Your task to perform on an android device: read, delete, or share a saved page in the chrome app Image 0: 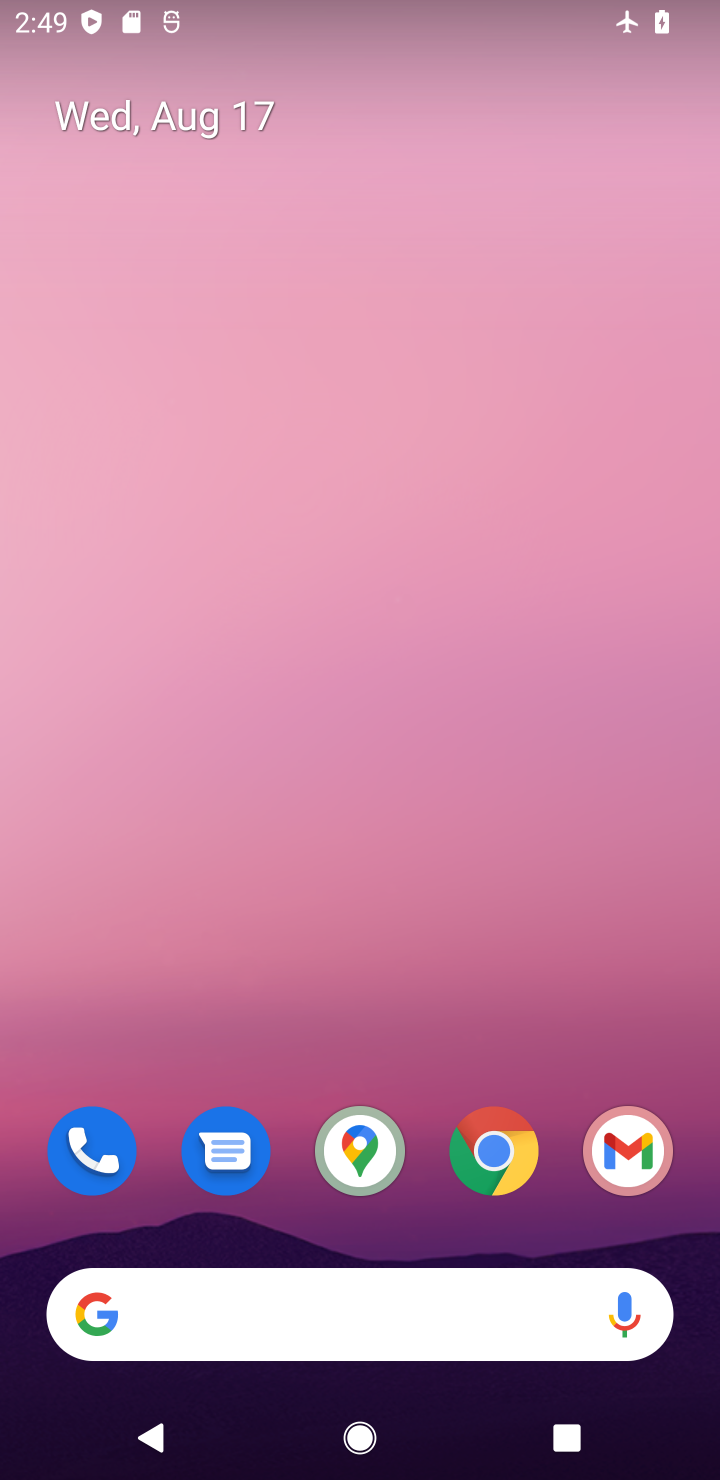
Step 0: drag from (306, 868) to (326, 487)
Your task to perform on an android device: read, delete, or share a saved page in the chrome app Image 1: 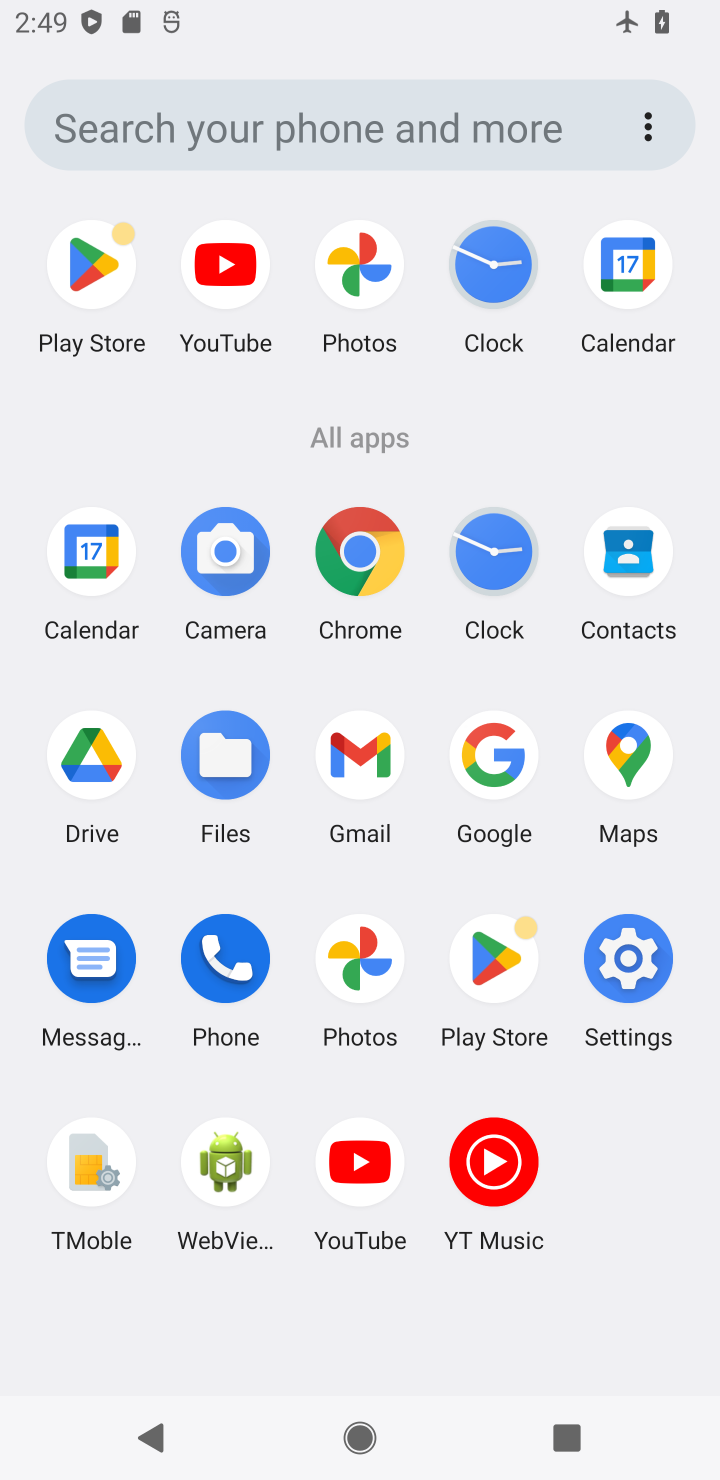
Step 1: click (354, 551)
Your task to perform on an android device: read, delete, or share a saved page in the chrome app Image 2: 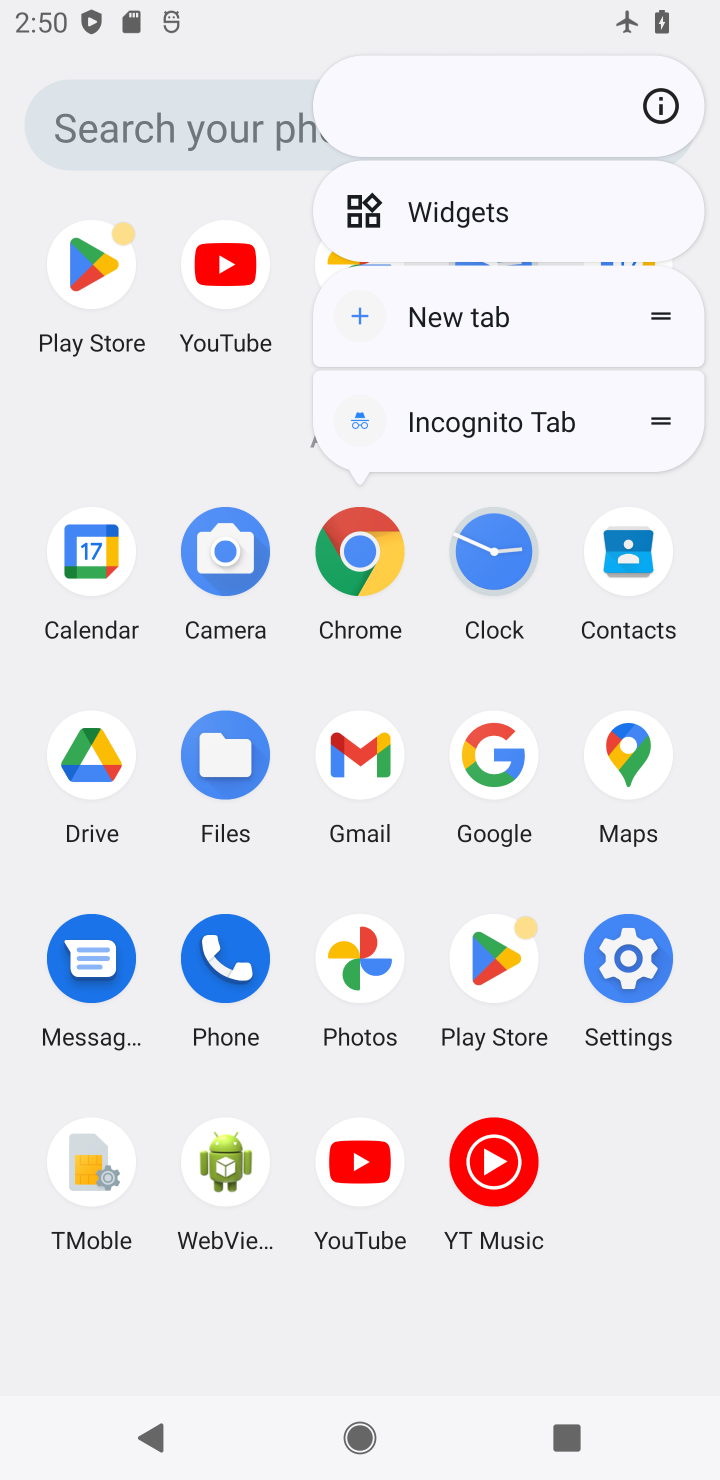
Step 2: click (377, 526)
Your task to perform on an android device: read, delete, or share a saved page in the chrome app Image 3: 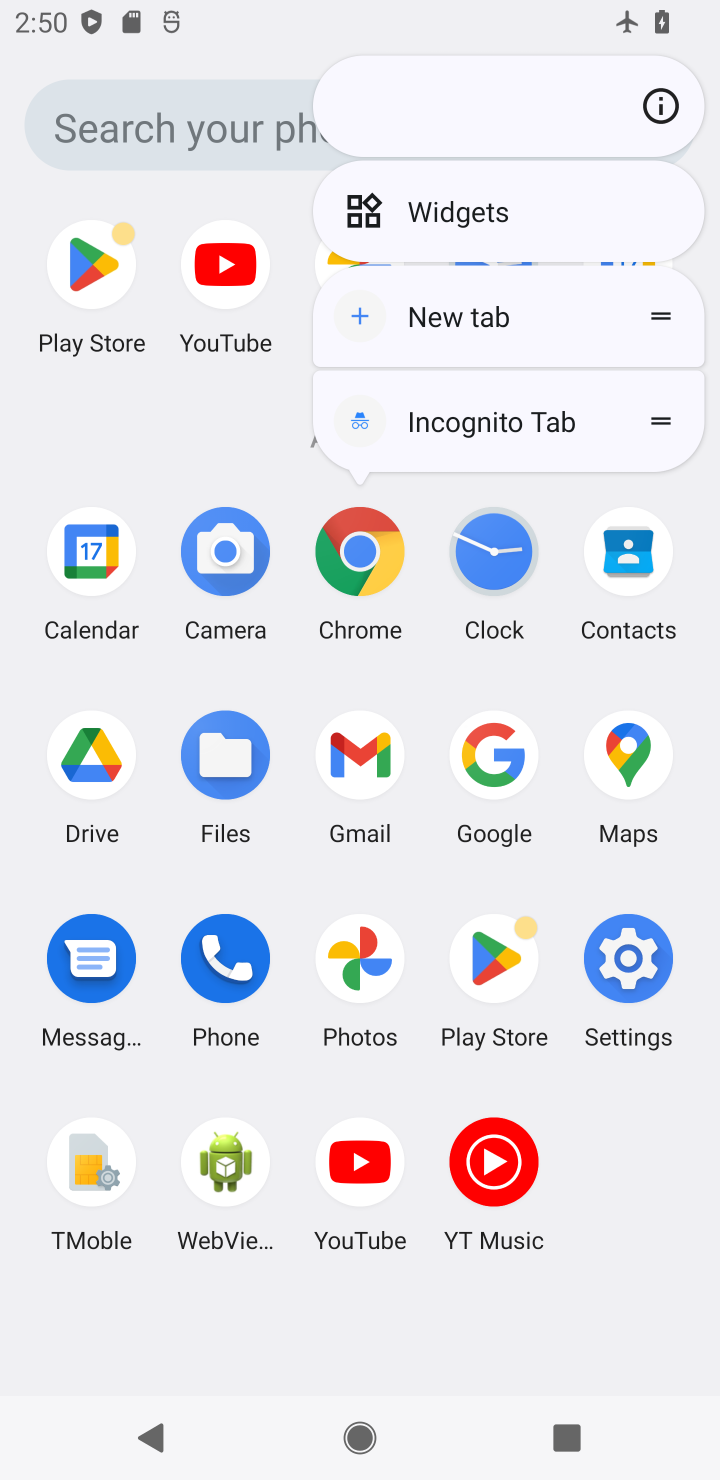
Step 3: click (369, 562)
Your task to perform on an android device: read, delete, or share a saved page in the chrome app Image 4: 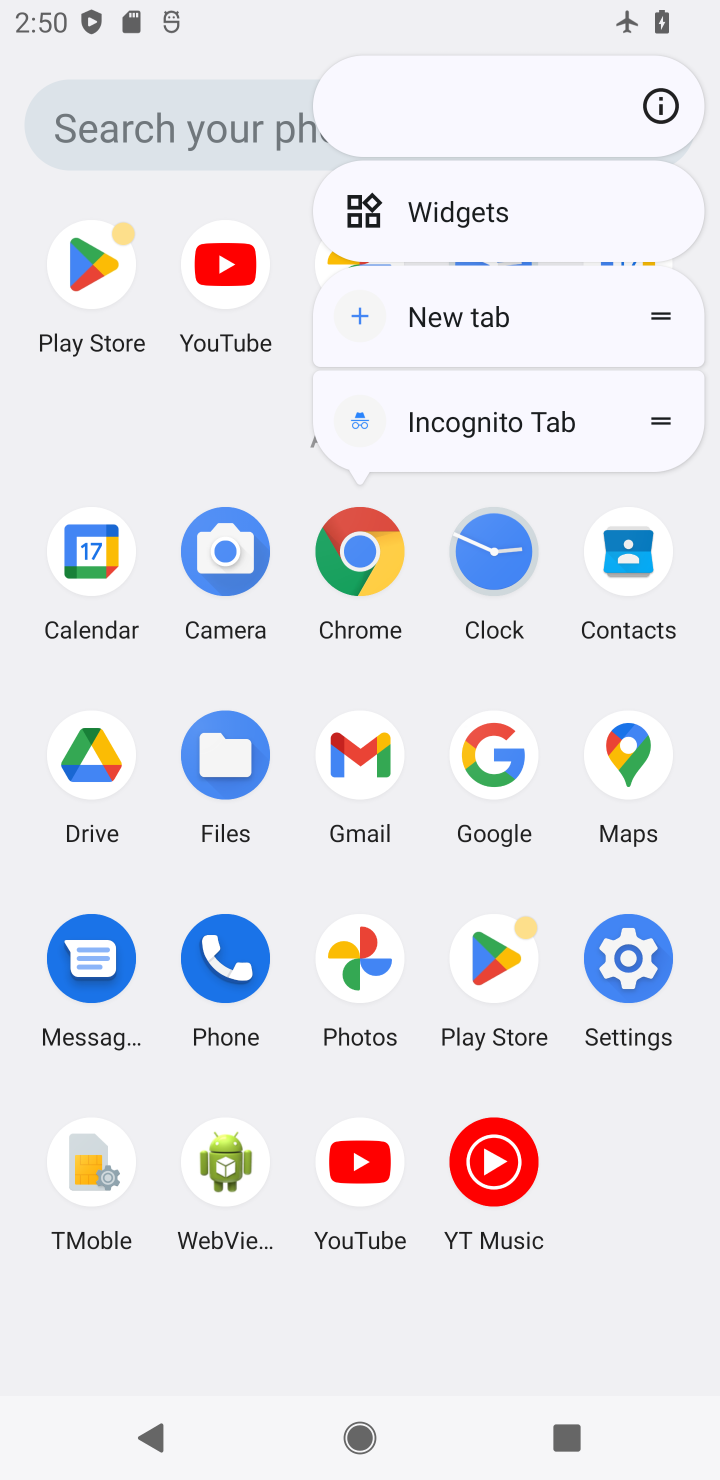
Step 4: click (369, 562)
Your task to perform on an android device: read, delete, or share a saved page in the chrome app Image 5: 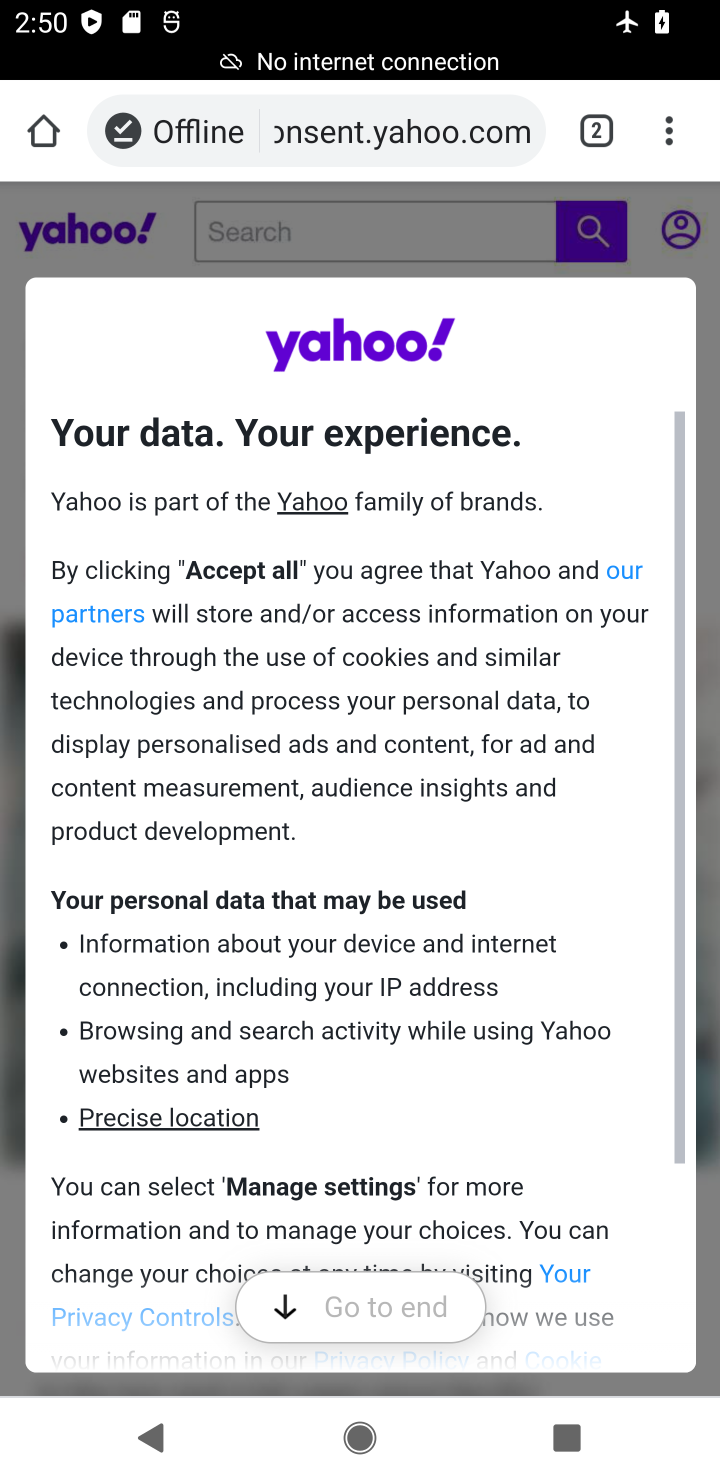
Step 5: click (678, 131)
Your task to perform on an android device: read, delete, or share a saved page in the chrome app Image 6: 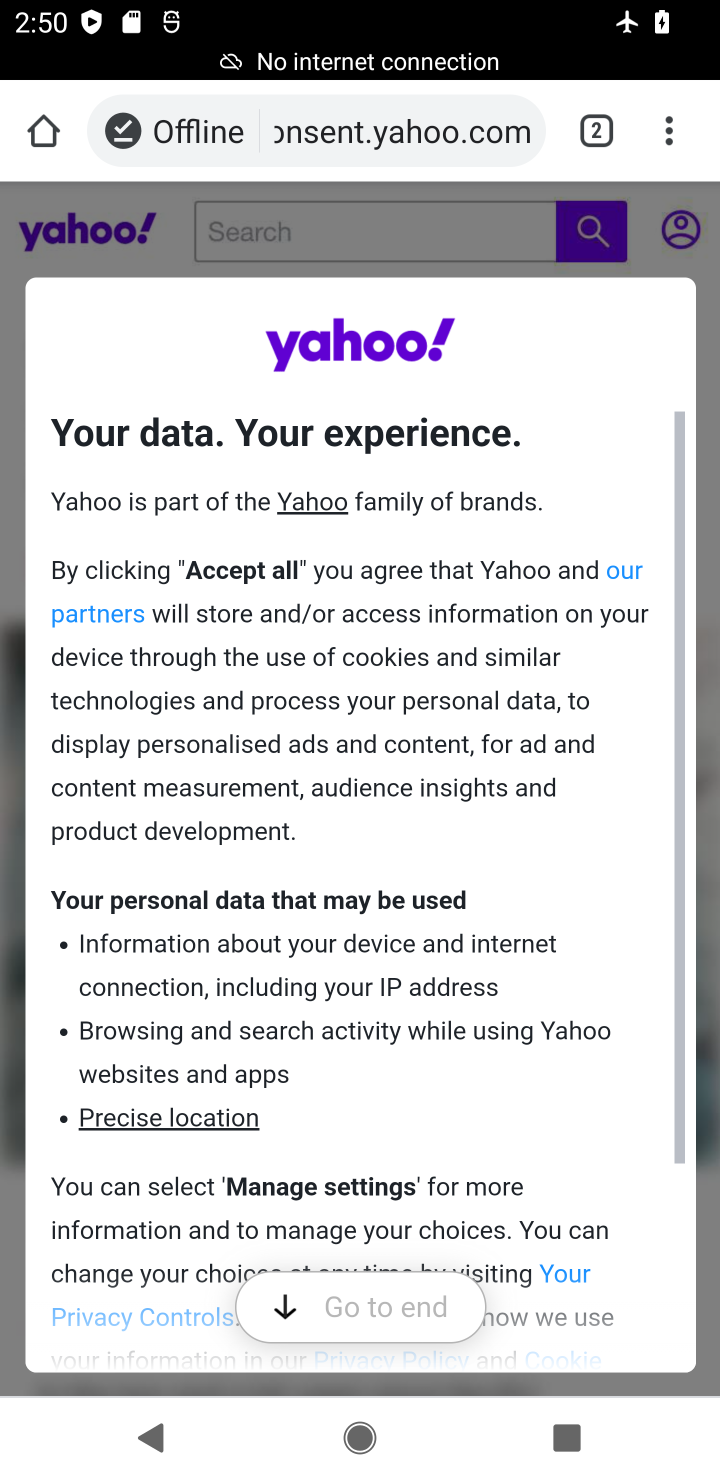
Step 6: click (662, 119)
Your task to perform on an android device: read, delete, or share a saved page in the chrome app Image 7: 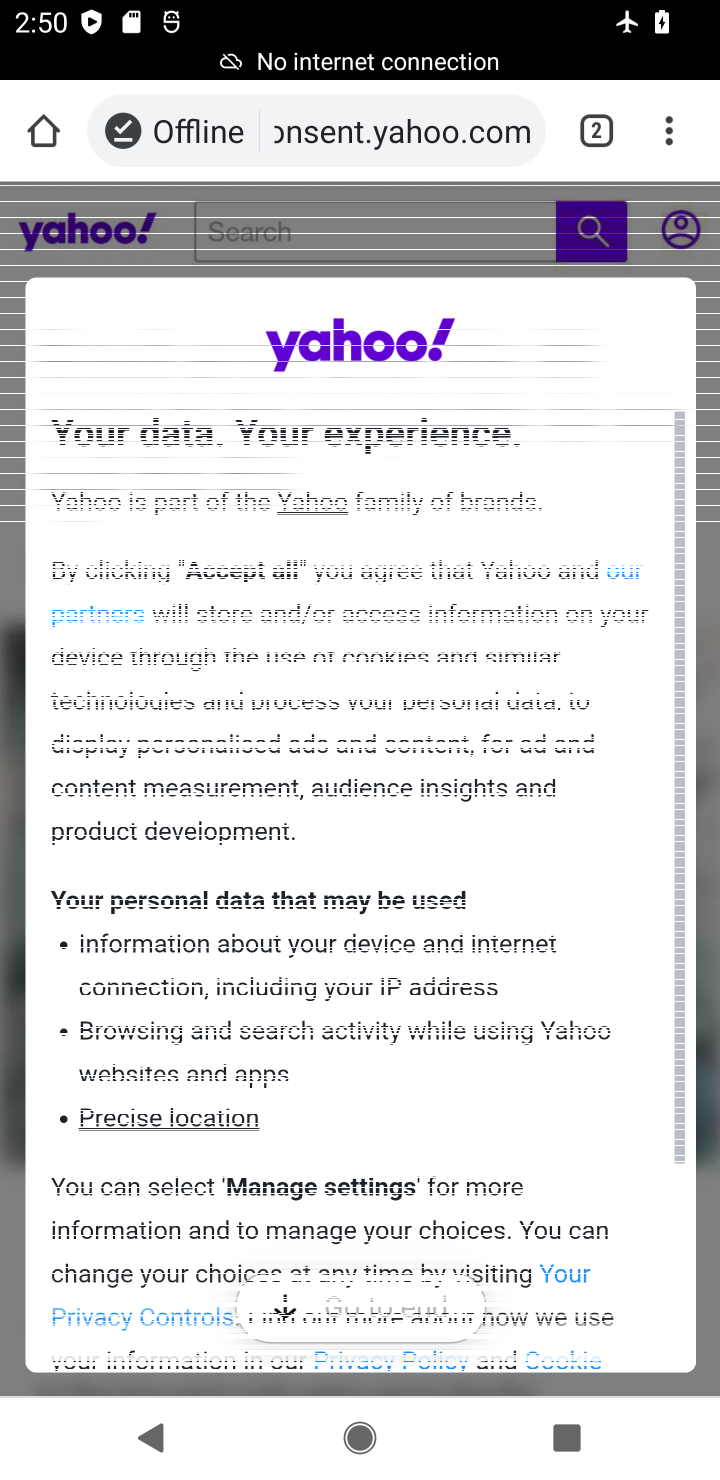
Step 7: click (669, 123)
Your task to perform on an android device: read, delete, or share a saved page in the chrome app Image 8: 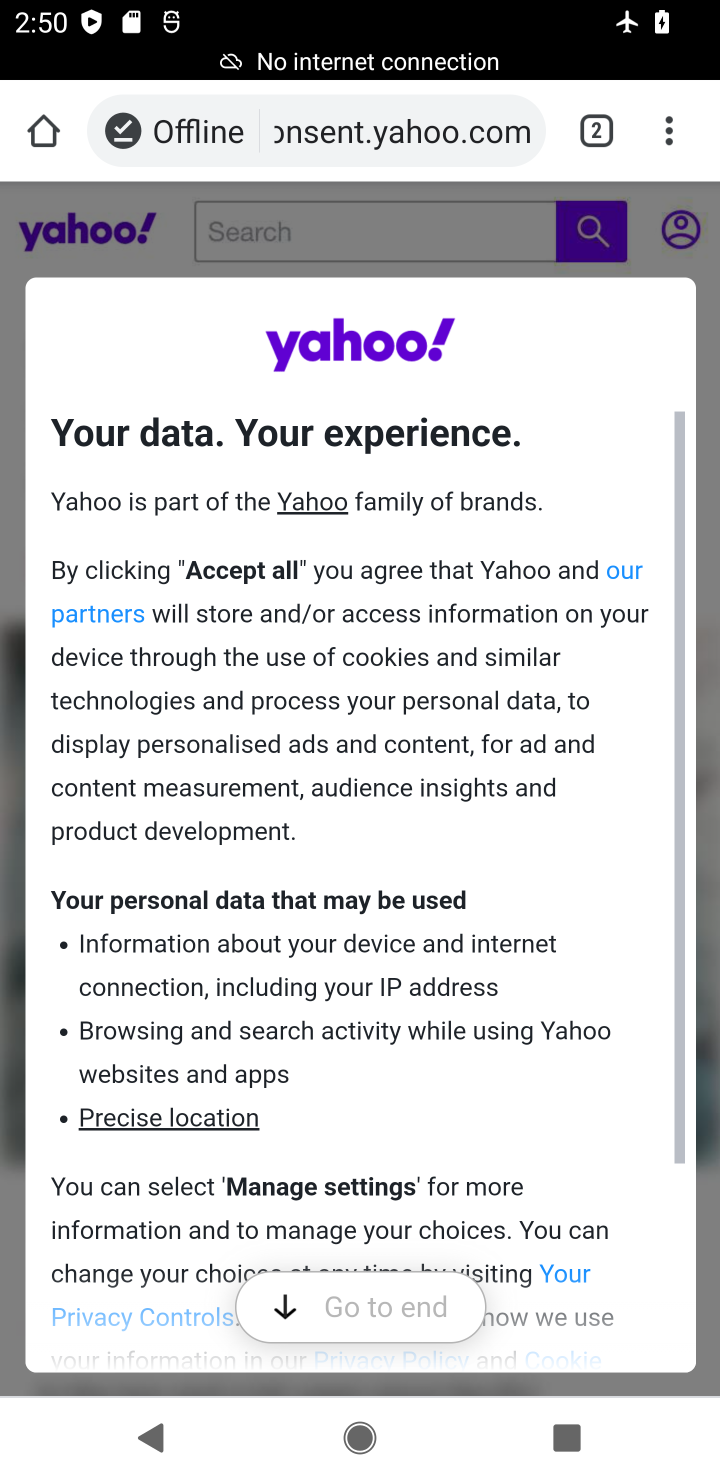
Step 8: click (669, 123)
Your task to perform on an android device: read, delete, or share a saved page in the chrome app Image 9: 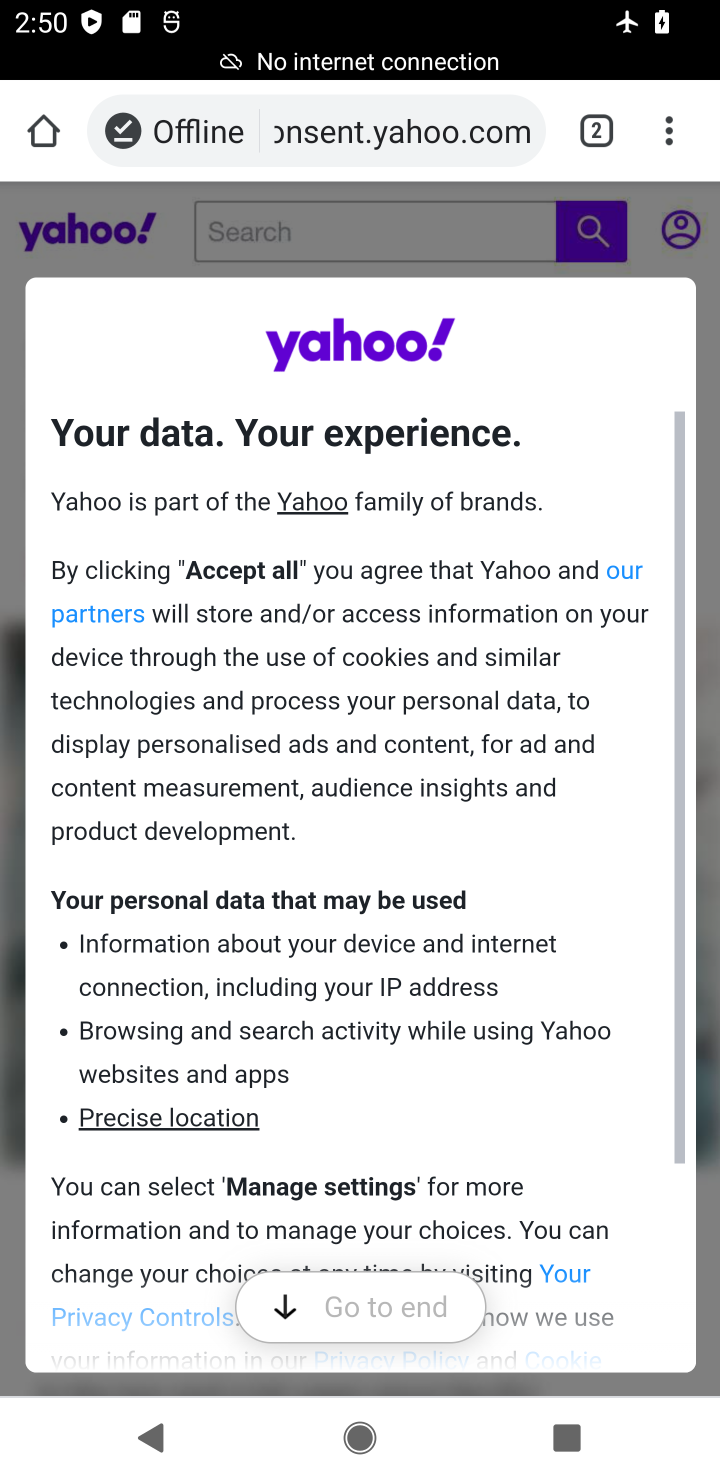
Step 9: click (659, 131)
Your task to perform on an android device: read, delete, or share a saved page in the chrome app Image 10: 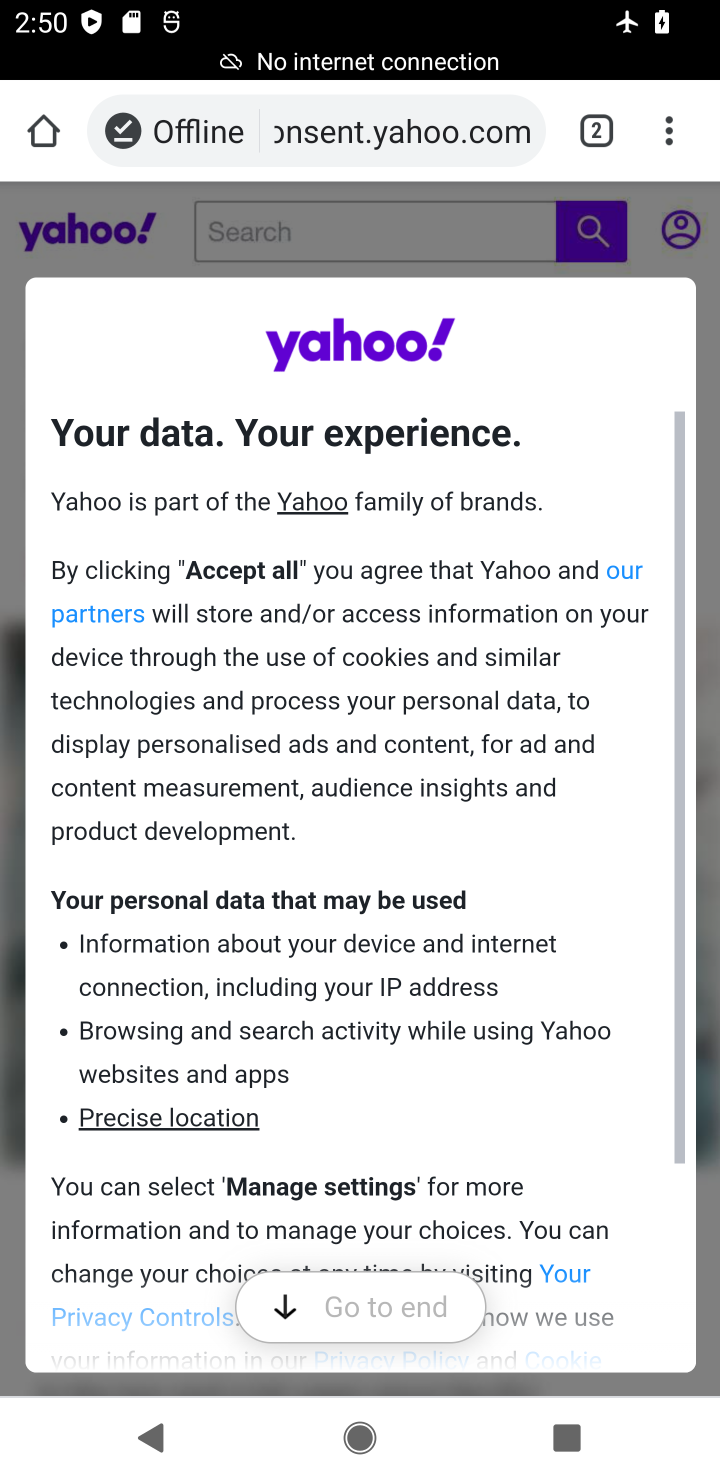
Step 10: click (697, 128)
Your task to perform on an android device: read, delete, or share a saved page in the chrome app Image 11: 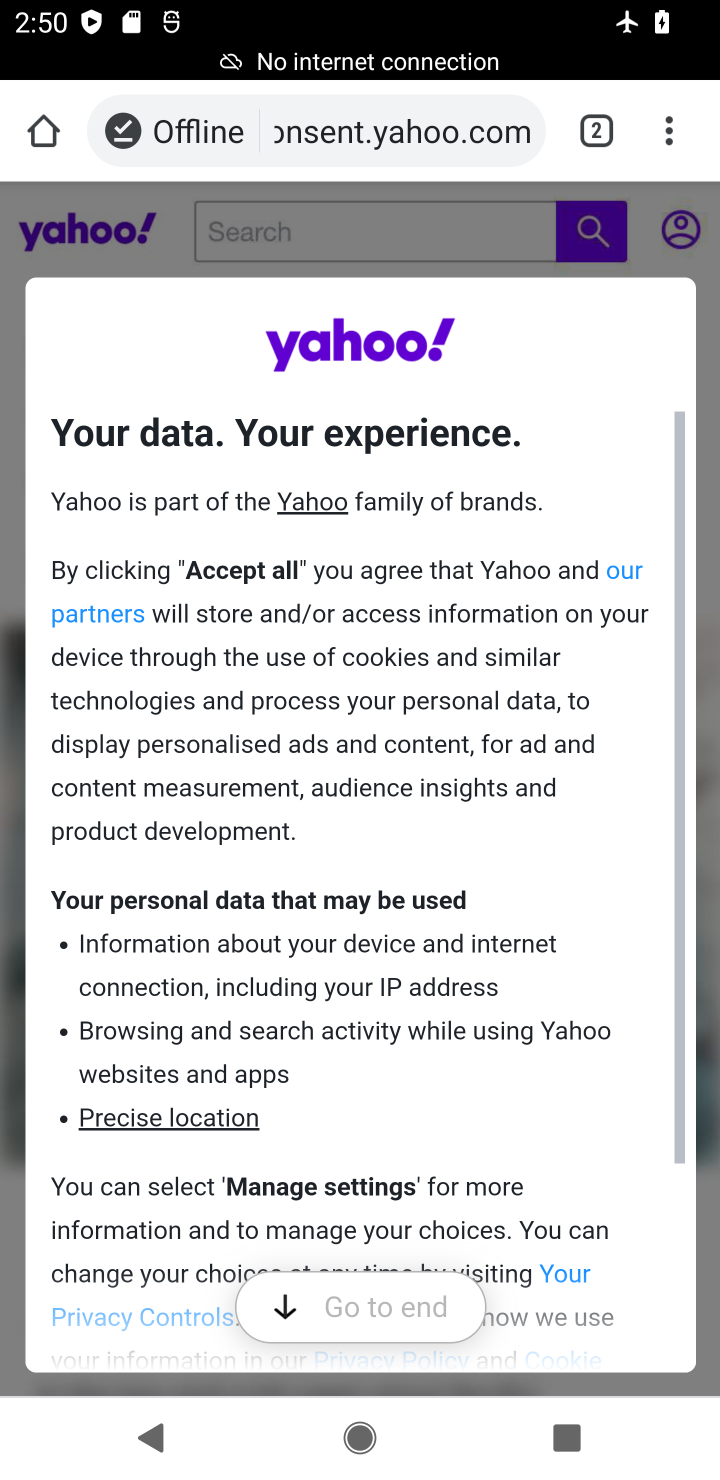
Step 11: click (654, 127)
Your task to perform on an android device: read, delete, or share a saved page in the chrome app Image 12: 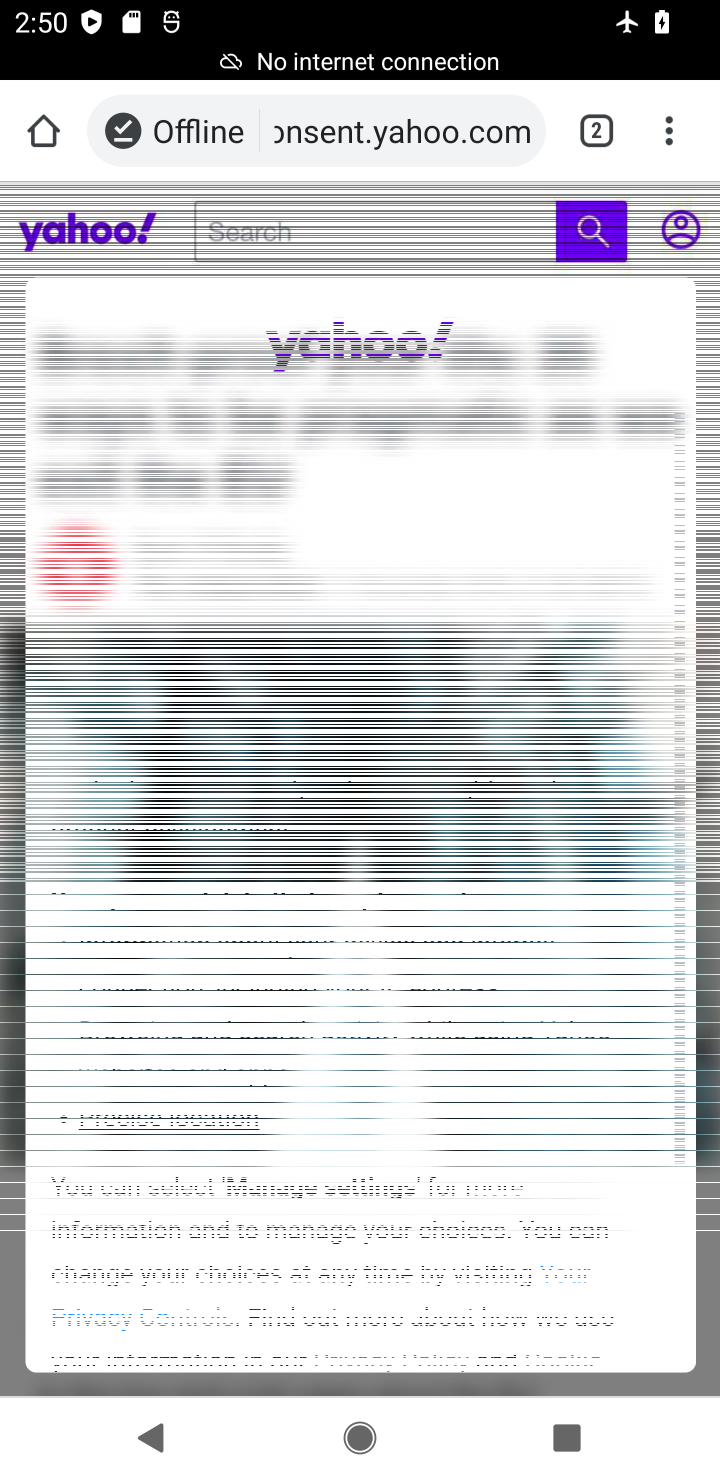
Step 12: task complete